Your task to perform on an android device: Open Maps and search for coffee Image 0: 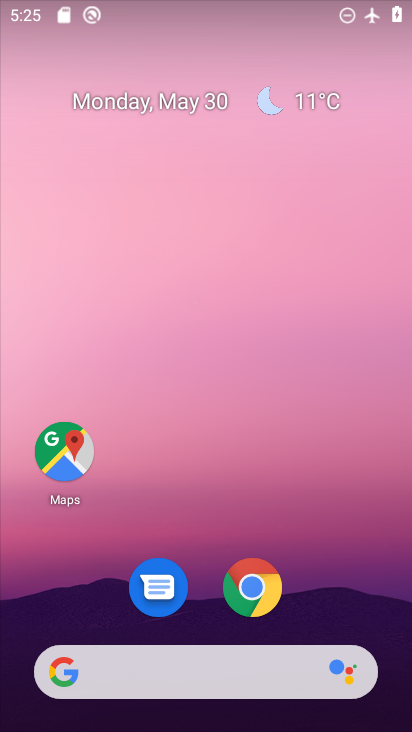
Step 0: drag from (342, 592) to (203, 4)
Your task to perform on an android device: Open Maps and search for coffee Image 1: 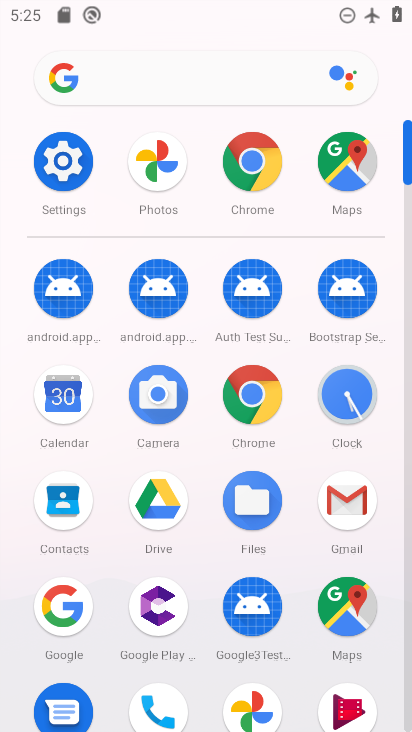
Step 1: drag from (12, 565) to (12, 286)
Your task to perform on an android device: Open Maps and search for coffee Image 2: 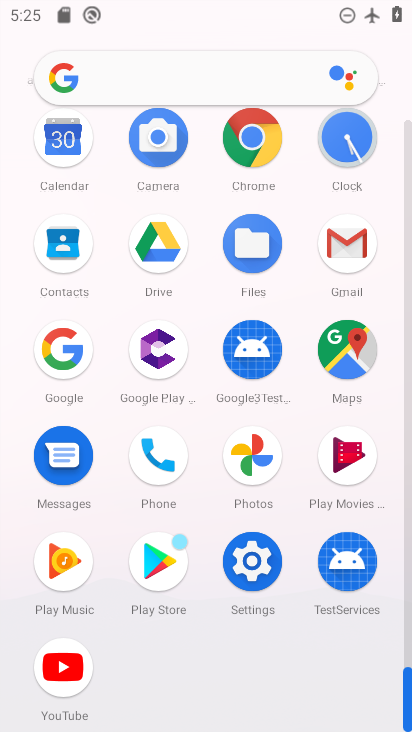
Step 2: click (343, 347)
Your task to perform on an android device: Open Maps and search for coffee Image 3: 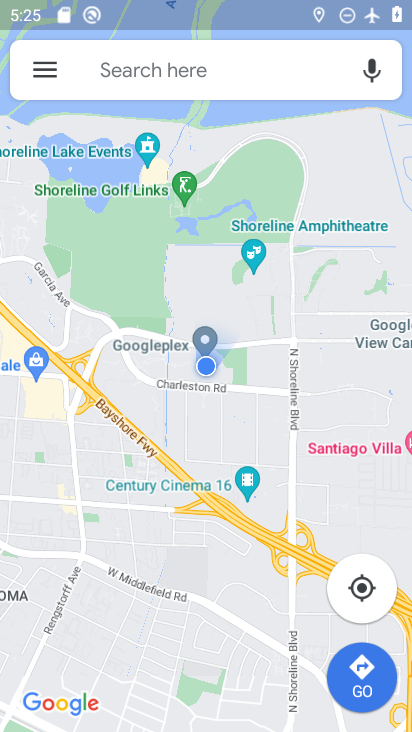
Step 3: click (238, 64)
Your task to perform on an android device: Open Maps and search for coffee Image 4: 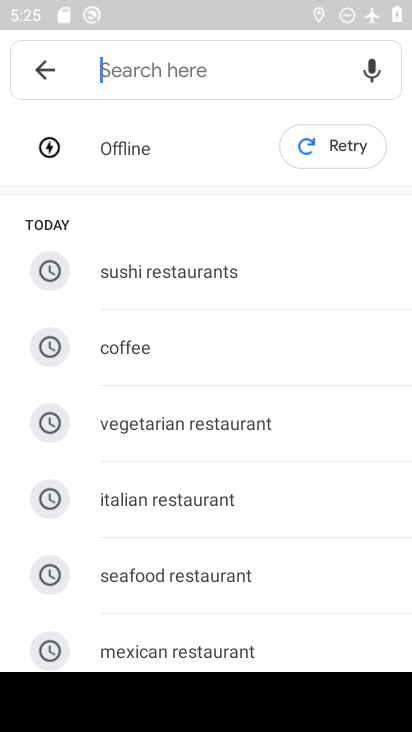
Step 4: click (185, 349)
Your task to perform on an android device: Open Maps and search for coffee Image 5: 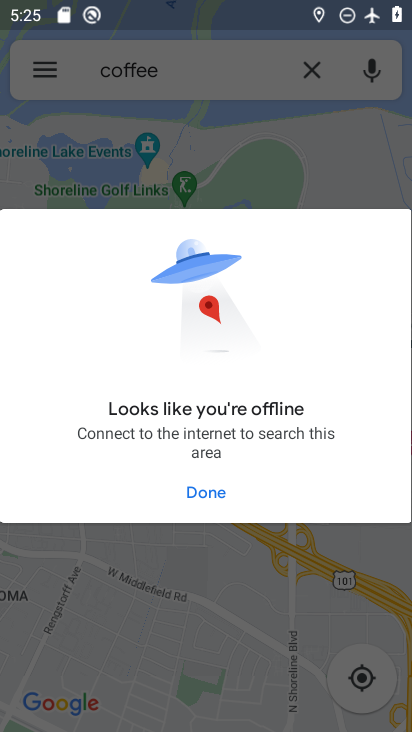
Step 5: task complete